Your task to perform on an android device: Open Google Chrome Image 0: 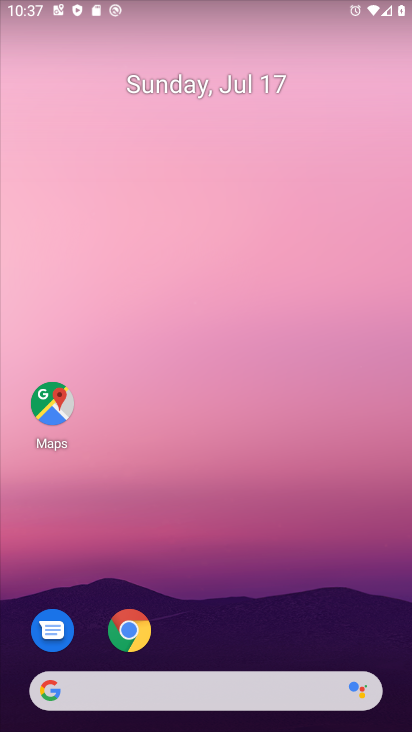
Step 0: drag from (310, 618) to (287, 185)
Your task to perform on an android device: Open Google Chrome Image 1: 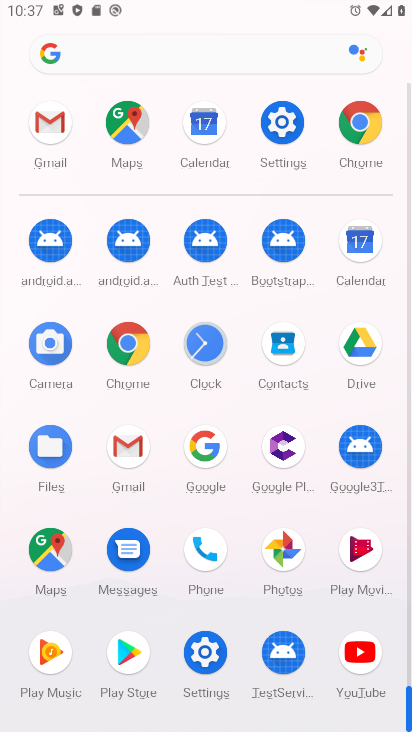
Step 1: click (132, 343)
Your task to perform on an android device: Open Google Chrome Image 2: 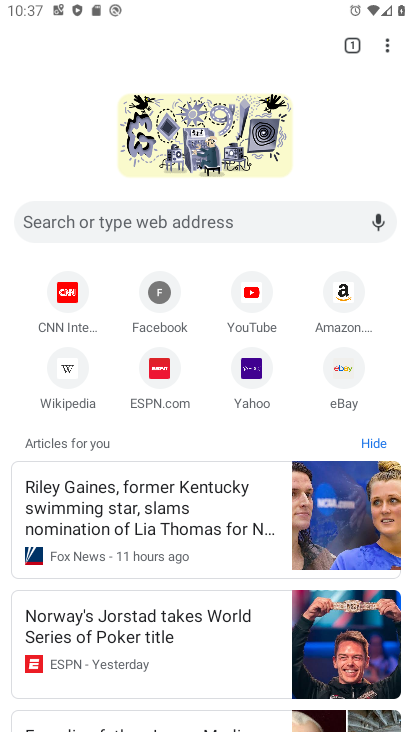
Step 2: task complete